Your task to perform on an android device: Go to internet settings Image 0: 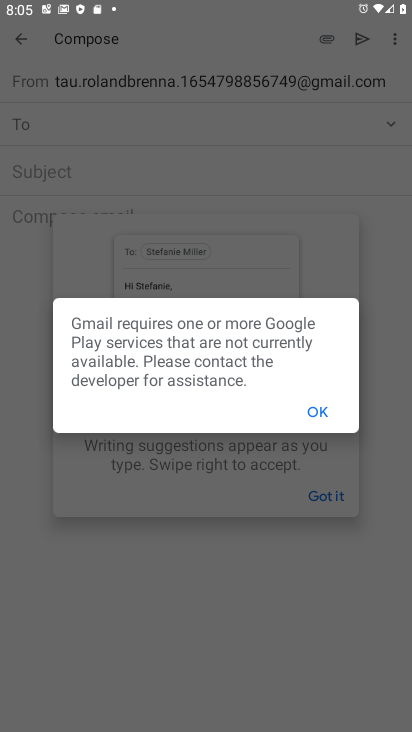
Step 0: press home button
Your task to perform on an android device: Go to internet settings Image 1: 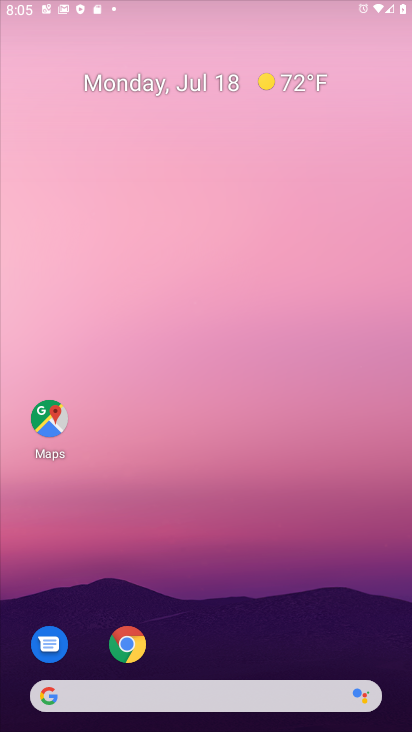
Step 1: drag from (401, 665) to (283, 8)
Your task to perform on an android device: Go to internet settings Image 2: 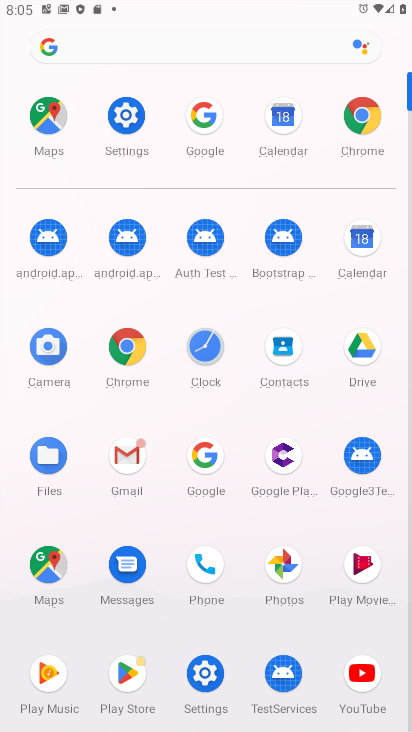
Step 2: click (202, 693)
Your task to perform on an android device: Go to internet settings Image 3: 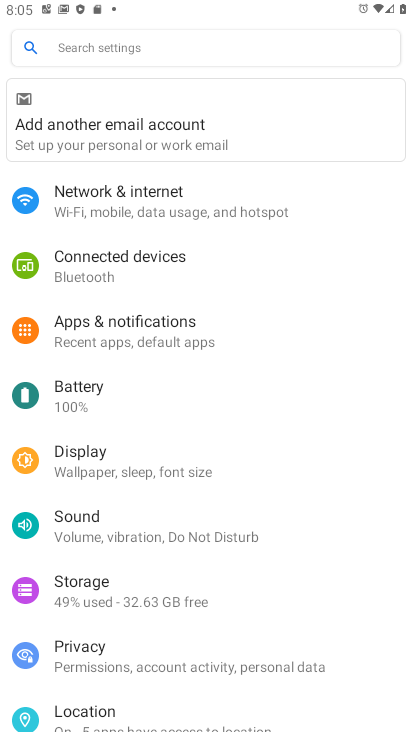
Step 3: click (87, 221)
Your task to perform on an android device: Go to internet settings Image 4: 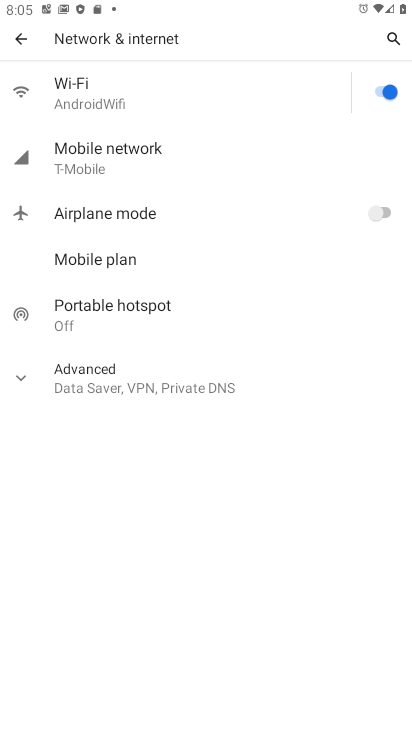
Step 4: click (42, 379)
Your task to perform on an android device: Go to internet settings Image 5: 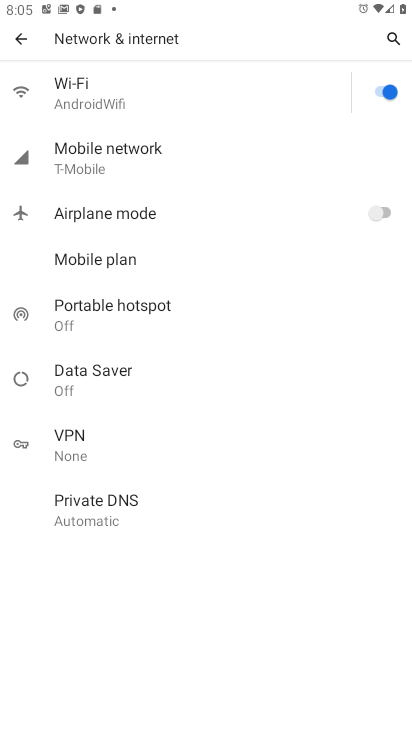
Step 5: task complete